Your task to perform on an android device: check storage Image 0: 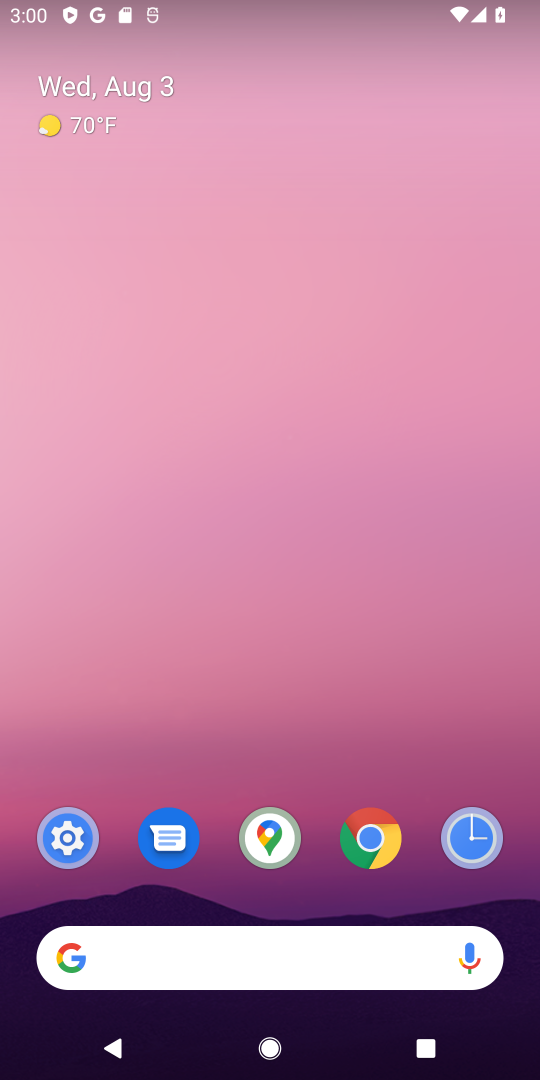
Step 0: click (77, 859)
Your task to perform on an android device: check storage Image 1: 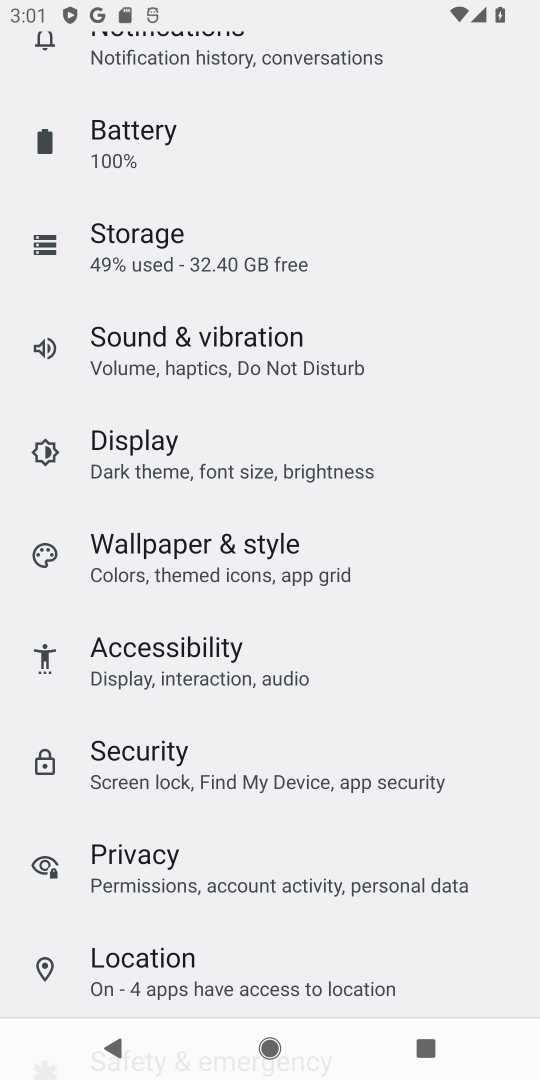
Step 1: click (196, 246)
Your task to perform on an android device: check storage Image 2: 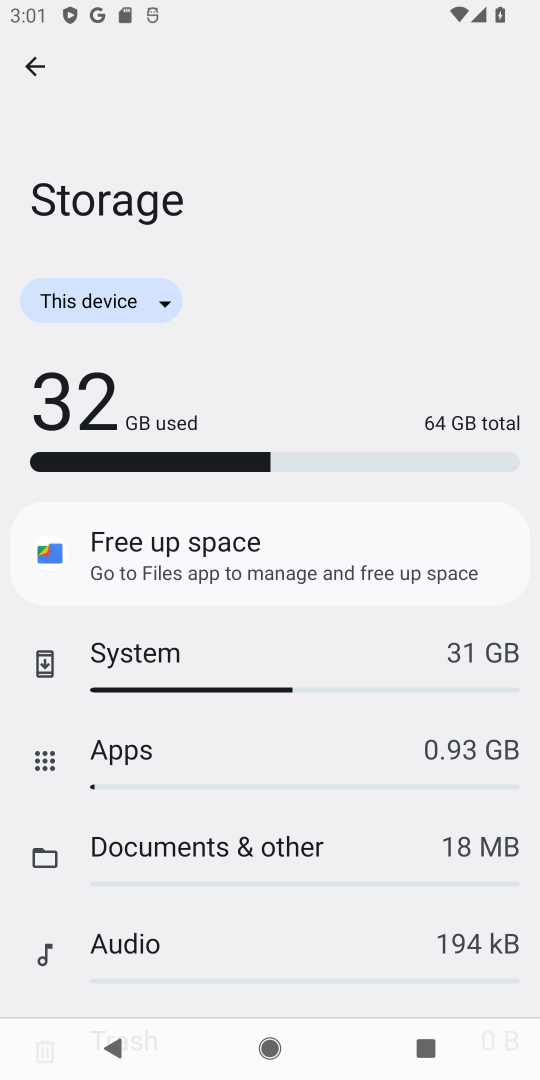
Step 2: task complete